Your task to perform on an android device: toggle airplane mode Image 0: 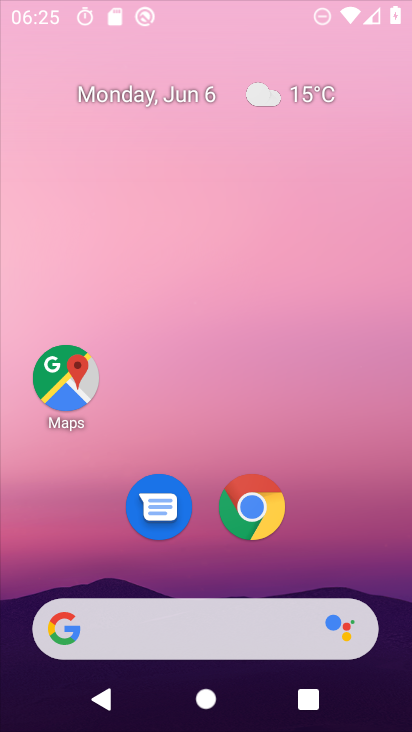
Step 0: click (83, 391)
Your task to perform on an android device: toggle airplane mode Image 1: 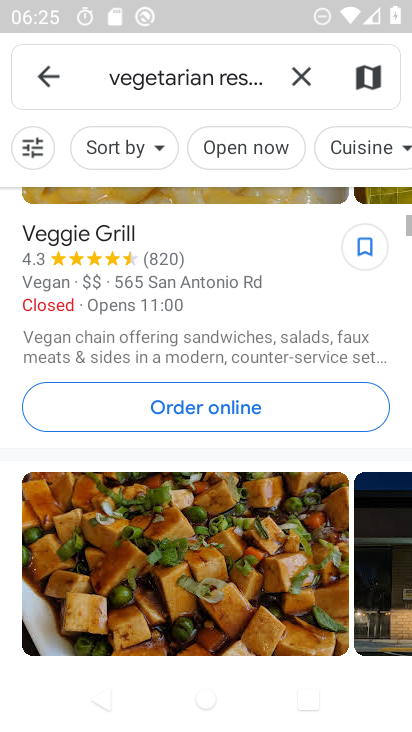
Step 1: task complete